Your task to perform on an android device: Is it going to rain tomorrow? Image 0: 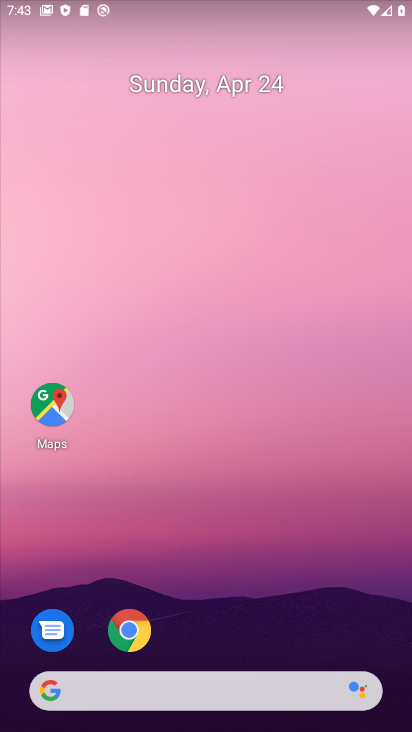
Step 0: click (260, 693)
Your task to perform on an android device: Is it going to rain tomorrow? Image 1: 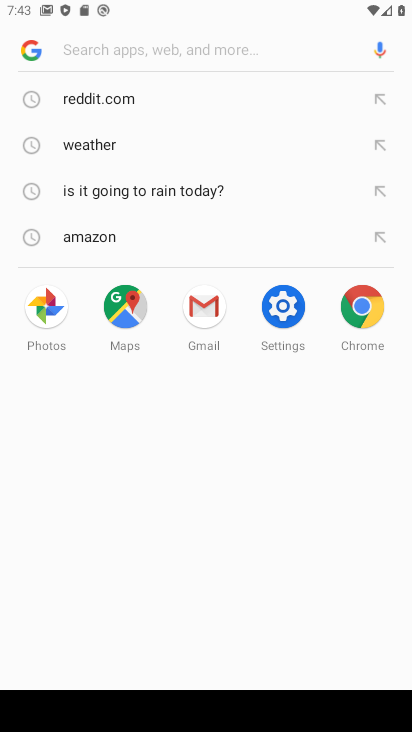
Step 1: click (90, 136)
Your task to perform on an android device: Is it going to rain tomorrow? Image 2: 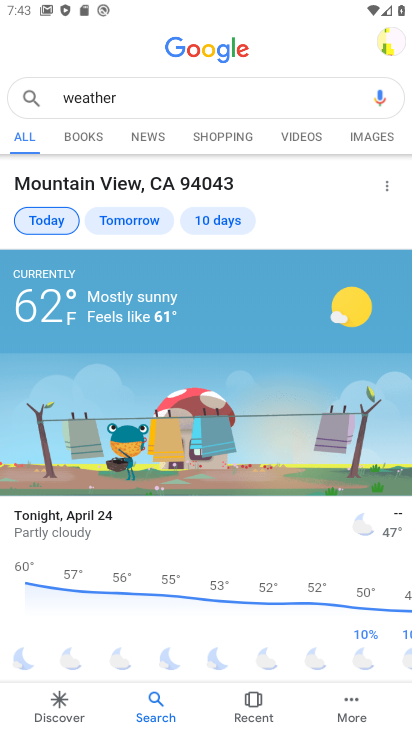
Step 2: click (120, 212)
Your task to perform on an android device: Is it going to rain tomorrow? Image 3: 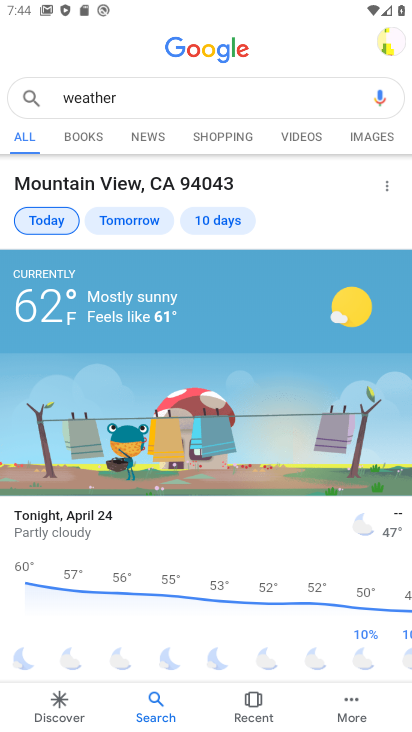
Step 3: click (124, 224)
Your task to perform on an android device: Is it going to rain tomorrow? Image 4: 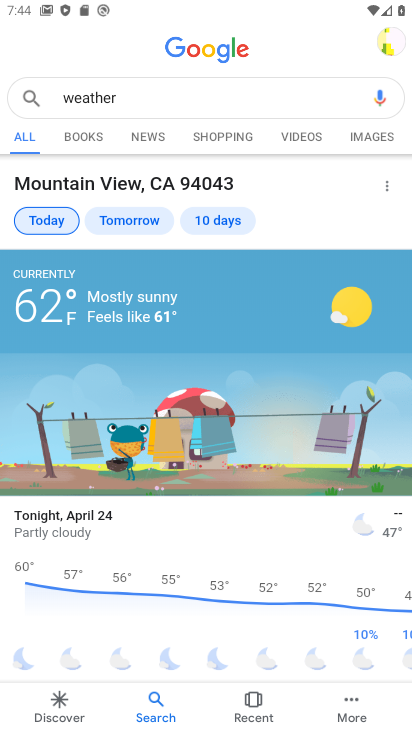
Step 4: click (130, 216)
Your task to perform on an android device: Is it going to rain tomorrow? Image 5: 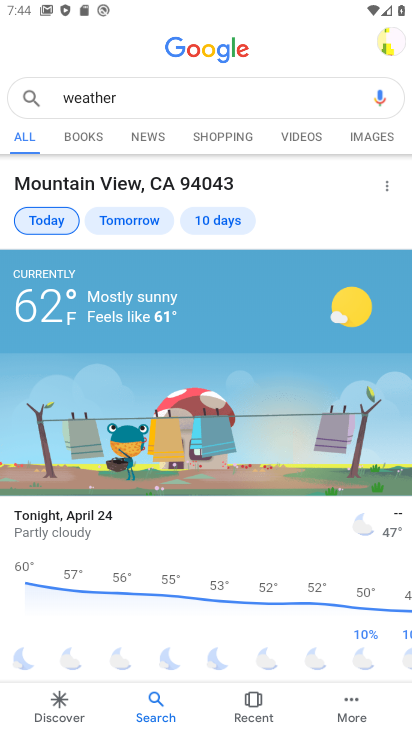
Step 5: click (130, 216)
Your task to perform on an android device: Is it going to rain tomorrow? Image 6: 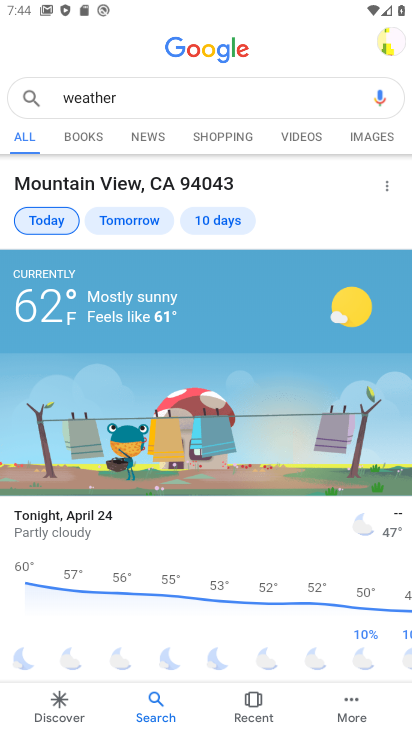
Step 6: task complete